Your task to perform on an android device: change notification settings in the gmail app Image 0: 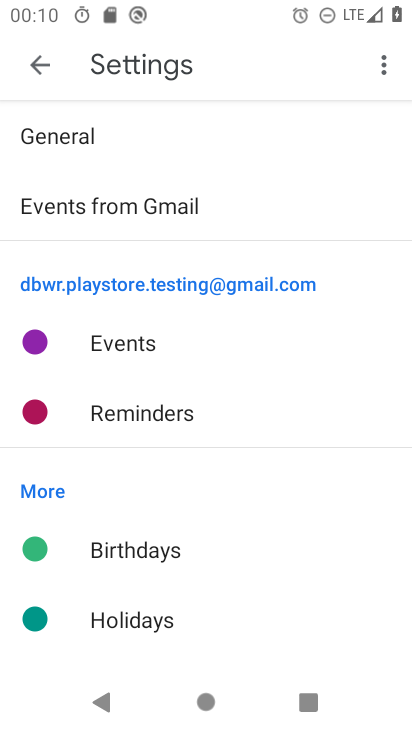
Step 0: press home button
Your task to perform on an android device: change notification settings in the gmail app Image 1: 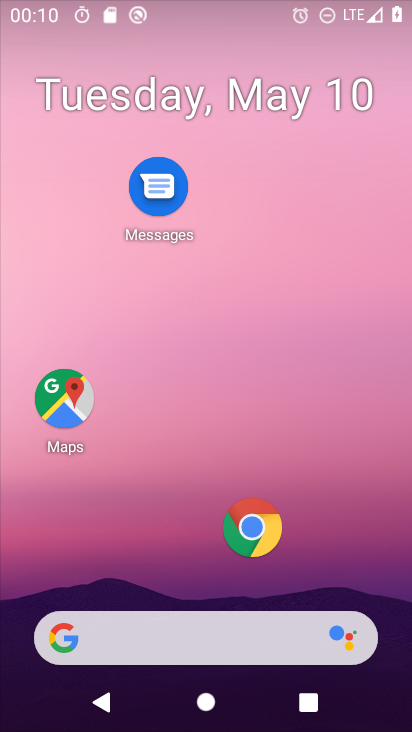
Step 1: drag from (181, 562) to (182, 33)
Your task to perform on an android device: change notification settings in the gmail app Image 2: 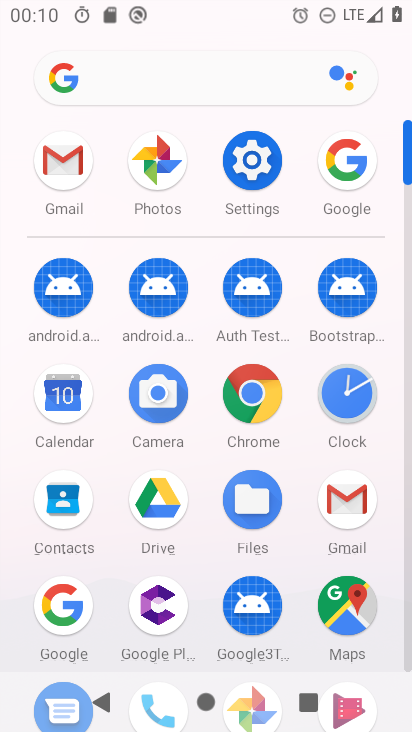
Step 2: click (57, 163)
Your task to perform on an android device: change notification settings in the gmail app Image 3: 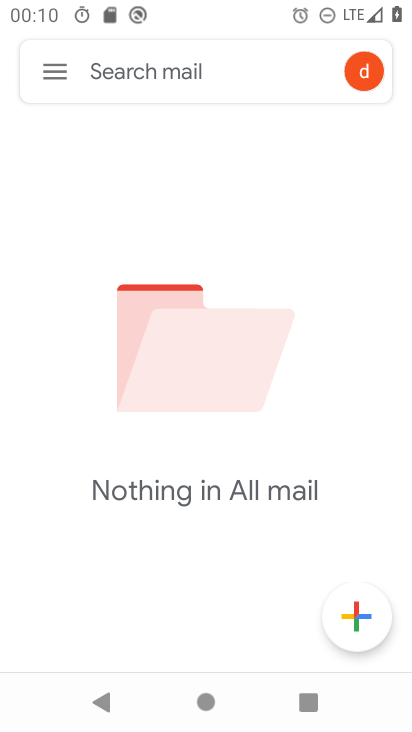
Step 3: click (66, 73)
Your task to perform on an android device: change notification settings in the gmail app Image 4: 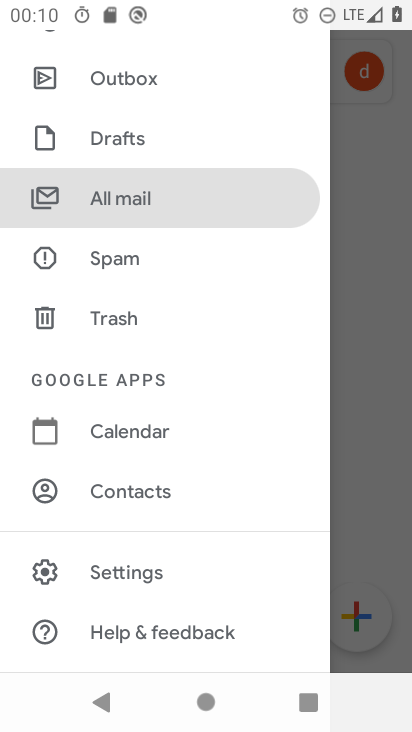
Step 4: click (154, 572)
Your task to perform on an android device: change notification settings in the gmail app Image 5: 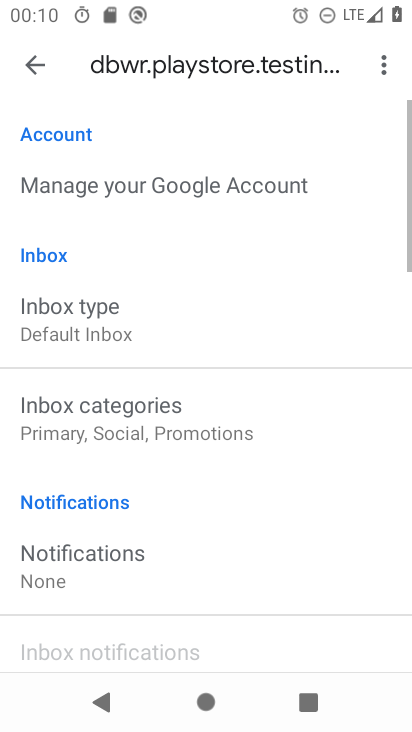
Step 5: drag from (173, 521) to (153, 296)
Your task to perform on an android device: change notification settings in the gmail app Image 6: 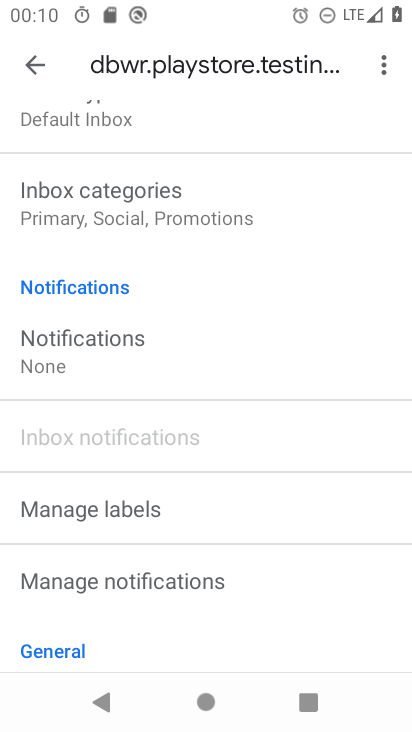
Step 6: click (95, 346)
Your task to perform on an android device: change notification settings in the gmail app Image 7: 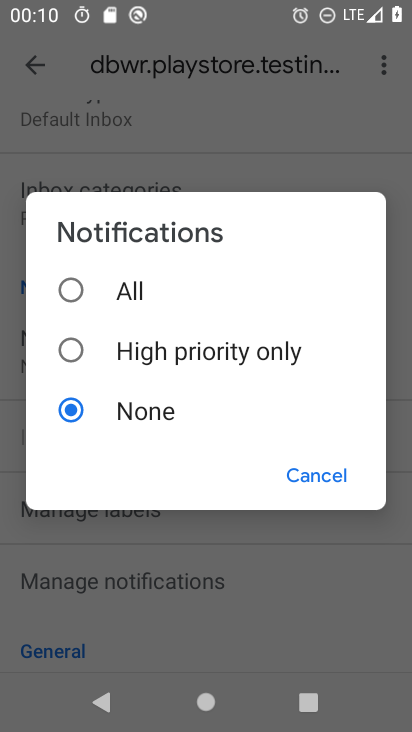
Step 7: click (72, 291)
Your task to perform on an android device: change notification settings in the gmail app Image 8: 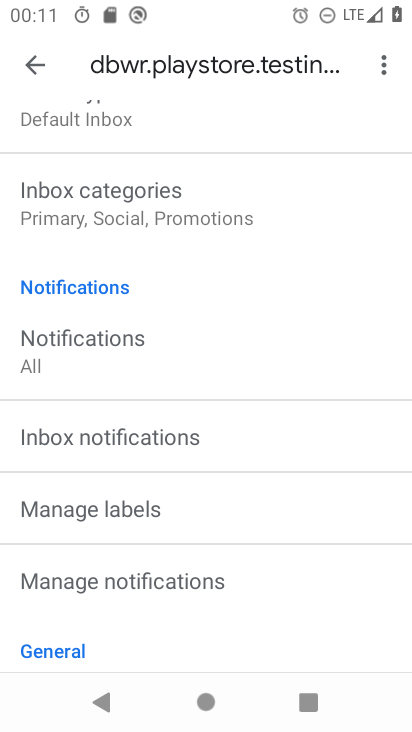
Step 8: task complete